Your task to perform on an android device: toggle data saver in the chrome app Image 0: 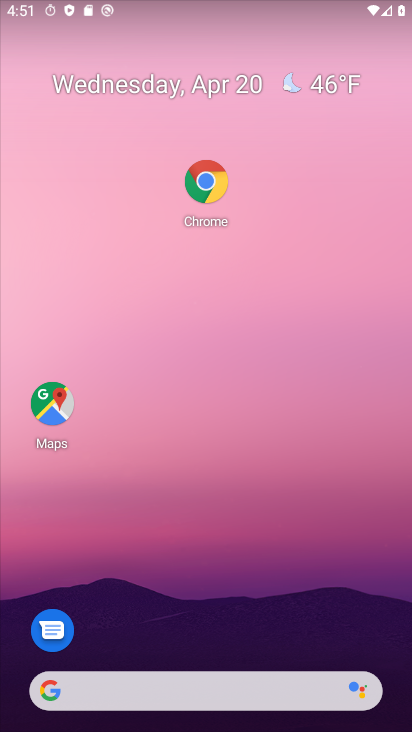
Step 0: click (203, 186)
Your task to perform on an android device: toggle data saver in the chrome app Image 1: 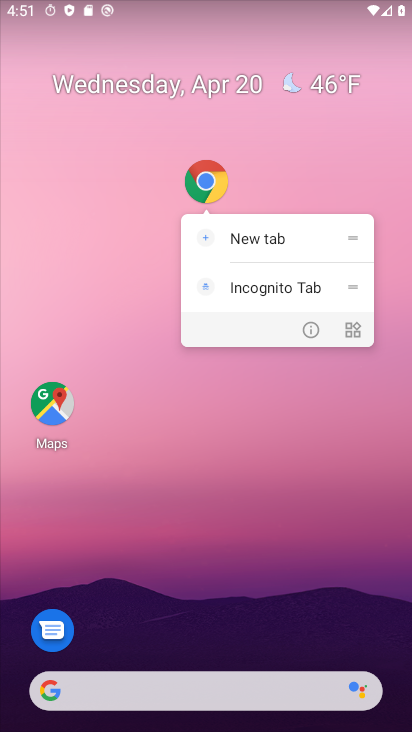
Step 1: click (213, 187)
Your task to perform on an android device: toggle data saver in the chrome app Image 2: 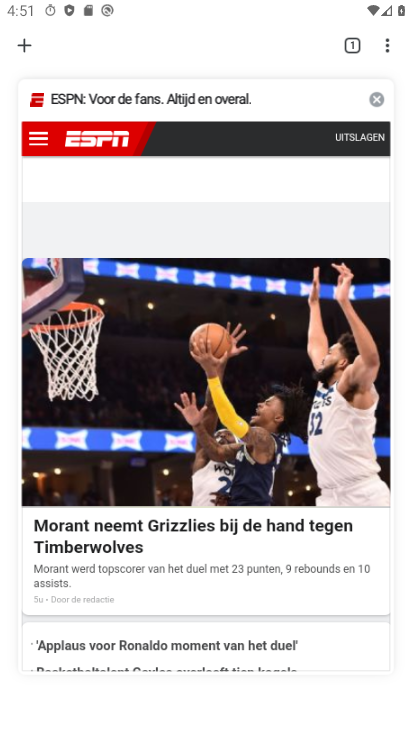
Step 2: click (386, 46)
Your task to perform on an android device: toggle data saver in the chrome app Image 3: 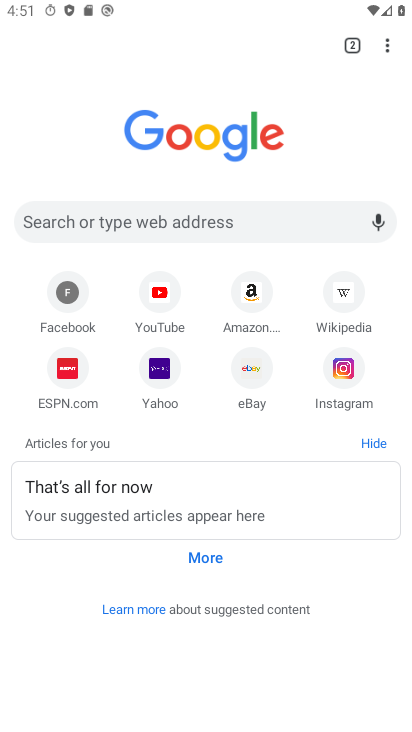
Step 3: click (386, 46)
Your task to perform on an android device: toggle data saver in the chrome app Image 4: 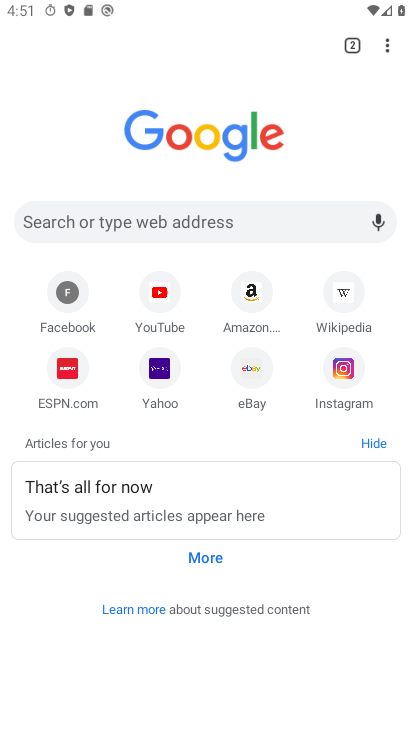
Step 4: click (386, 46)
Your task to perform on an android device: toggle data saver in the chrome app Image 5: 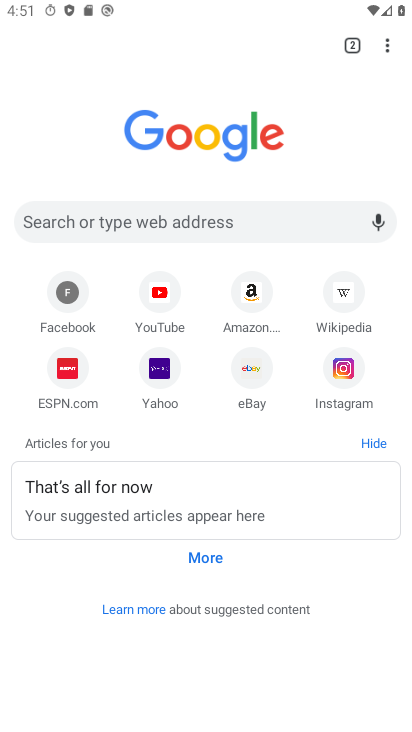
Step 5: click (386, 40)
Your task to perform on an android device: toggle data saver in the chrome app Image 6: 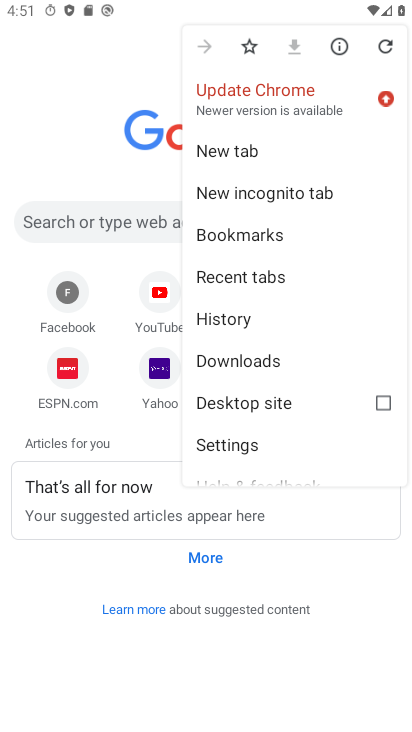
Step 6: click (253, 441)
Your task to perform on an android device: toggle data saver in the chrome app Image 7: 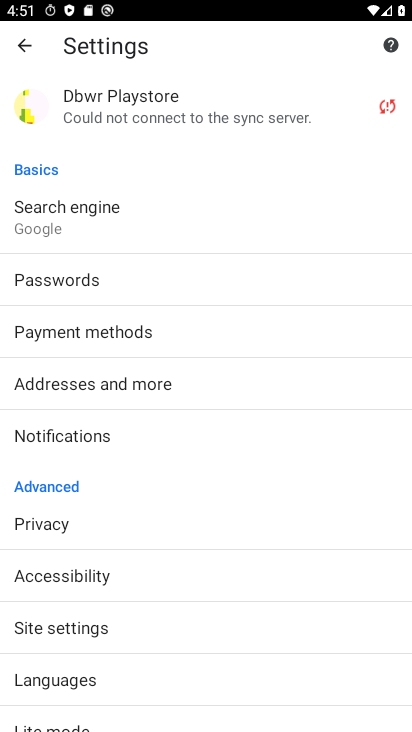
Step 7: drag from (109, 700) to (191, 390)
Your task to perform on an android device: toggle data saver in the chrome app Image 8: 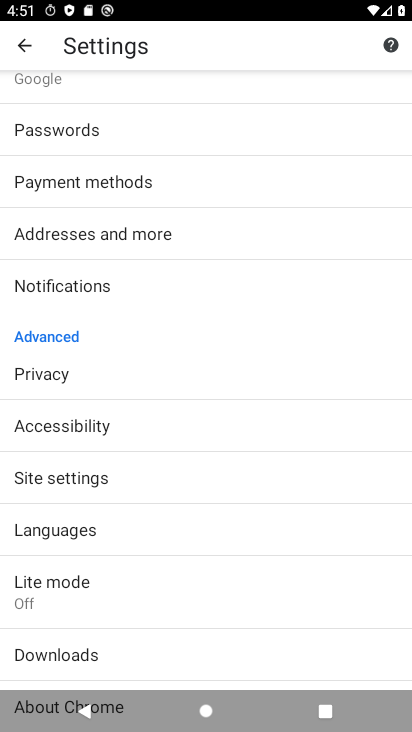
Step 8: click (82, 583)
Your task to perform on an android device: toggle data saver in the chrome app Image 9: 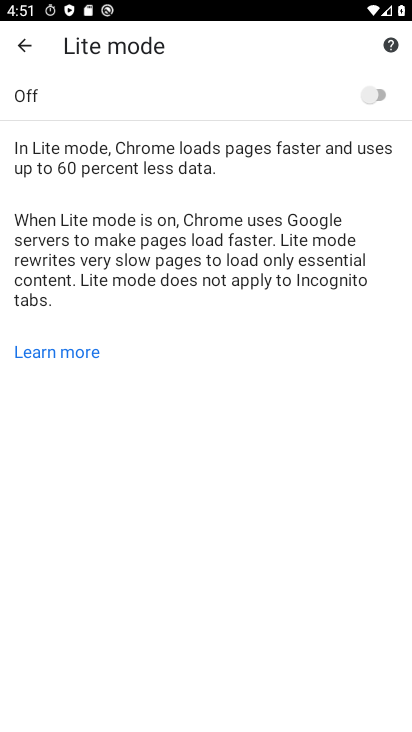
Step 9: click (383, 91)
Your task to perform on an android device: toggle data saver in the chrome app Image 10: 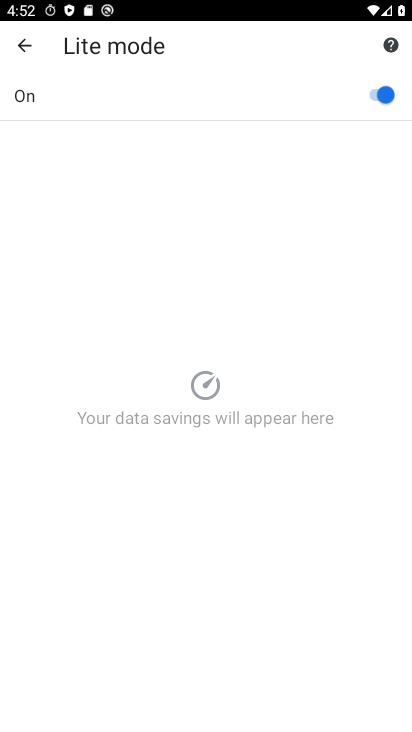
Step 10: task complete